Your task to perform on an android device: Go to Android settings Image 0: 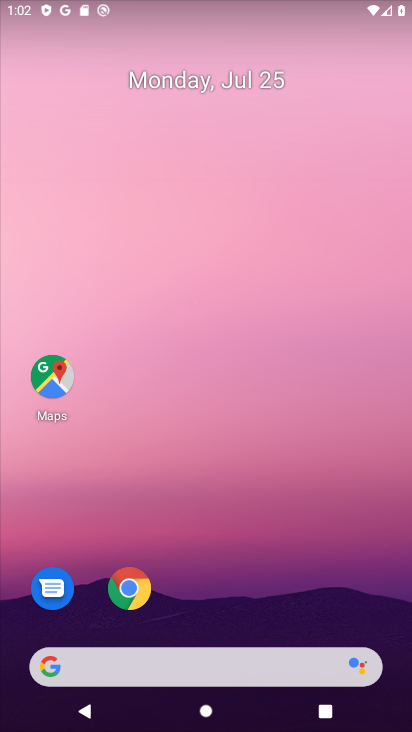
Step 0: drag from (172, 360) to (165, 246)
Your task to perform on an android device: Go to Android settings Image 1: 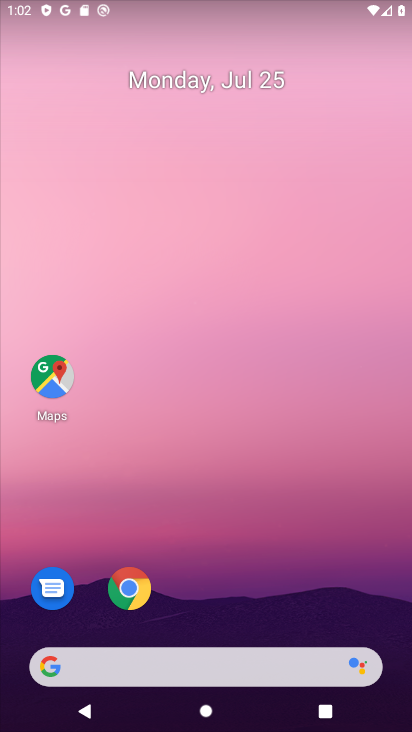
Step 1: drag from (188, 566) to (168, 235)
Your task to perform on an android device: Go to Android settings Image 2: 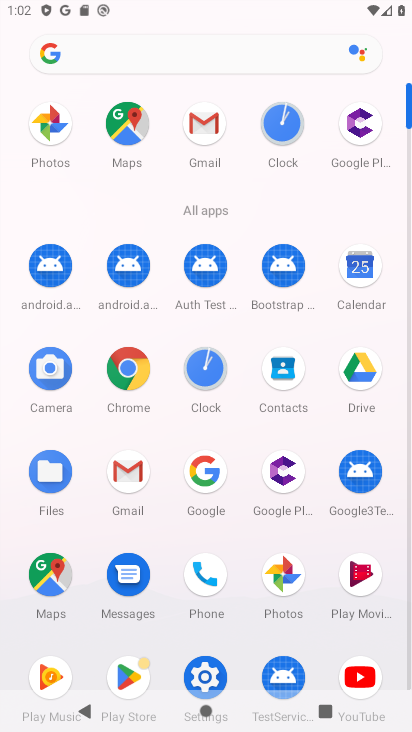
Step 2: click (193, 122)
Your task to perform on an android device: Go to Android settings Image 3: 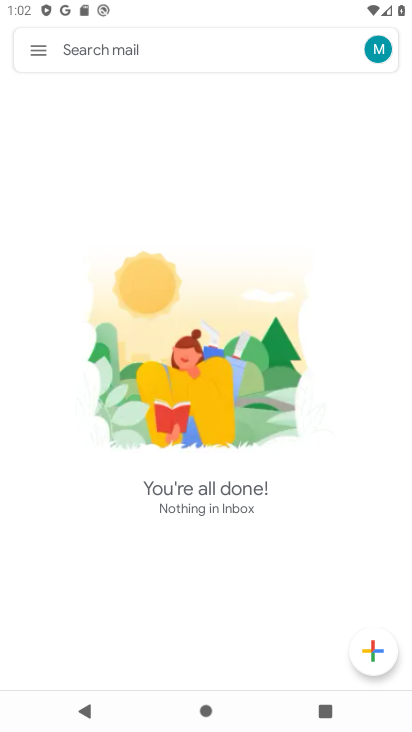
Step 3: press back button
Your task to perform on an android device: Go to Android settings Image 4: 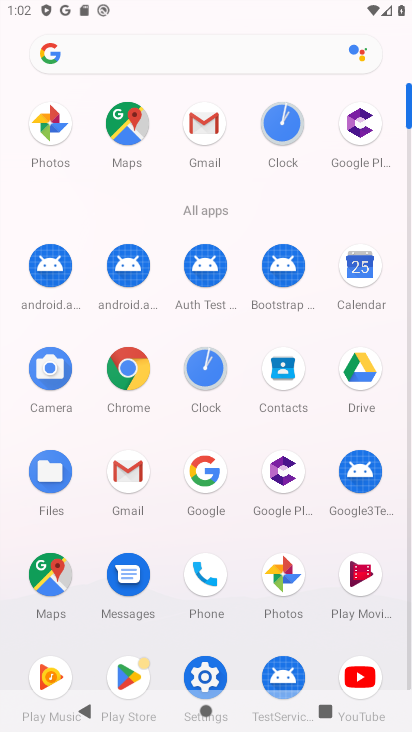
Step 4: click (205, 680)
Your task to perform on an android device: Go to Android settings Image 5: 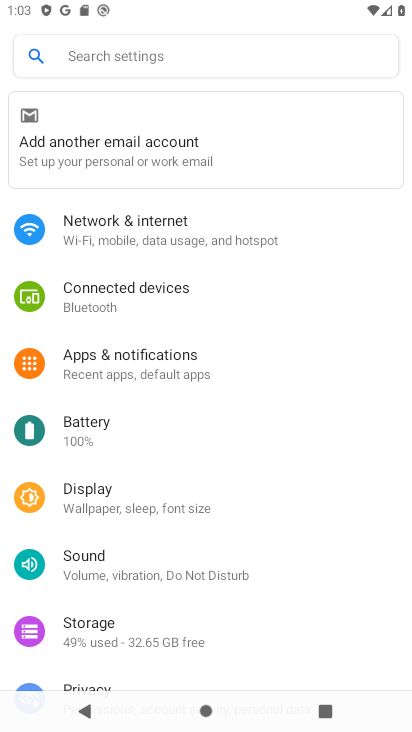
Step 5: click (90, 594)
Your task to perform on an android device: Go to Android settings Image 6: 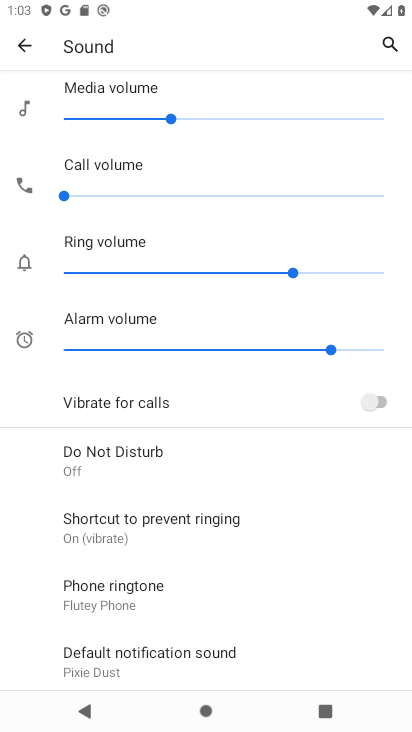
Step 6: click (23, 44)
Your task to perform on an android device: Go to Android settings Image 7: 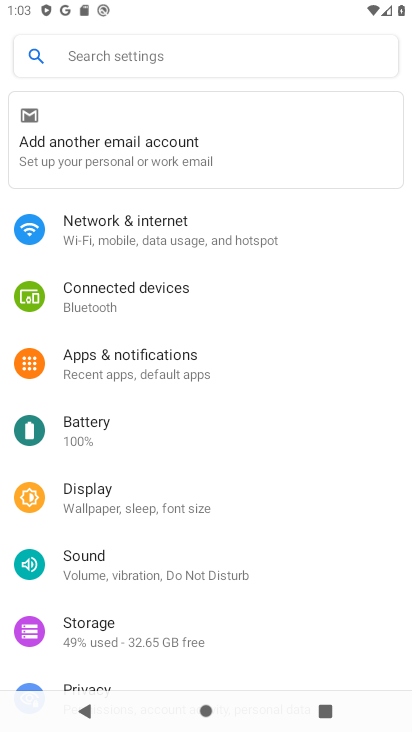
Step 7: drag from (116, 621) to (170, 204)
Your task to perform on an android device: Go to Android settings Image 8: 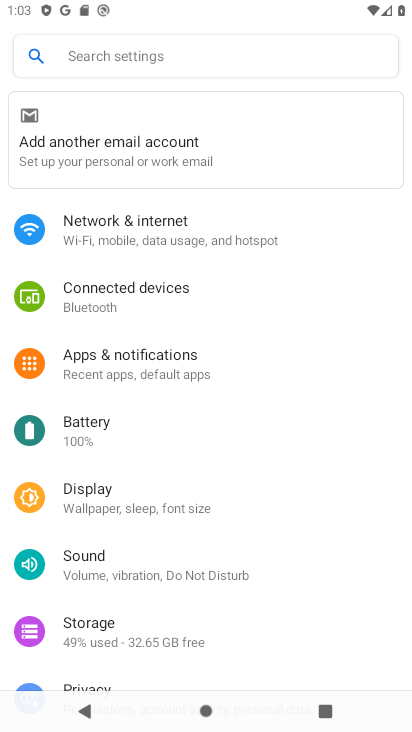
Step 8: drag from (138, 606) to (138, 124)
Your task to perform on an android device: Go to Android settings Image 9: 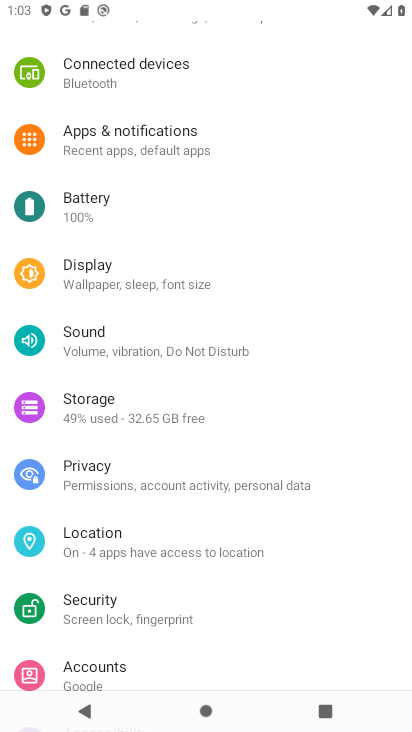
Step 9: drag from (114, 661) to (114, 222)
Your task to perform on an android device: Go to Android settings Image 10: 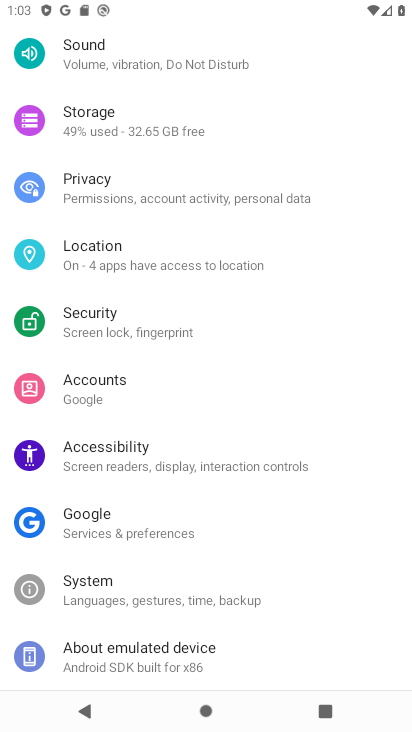
Step 10: click (98, 660)
Your task to perform on an android device: Go to Android settings Image 11: 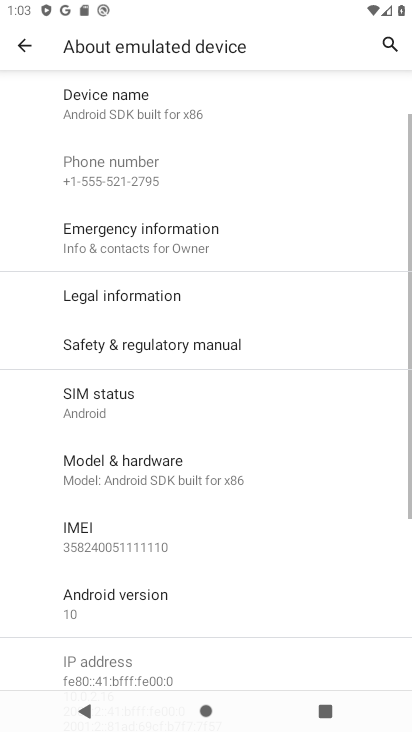
Step 11: click (85, 607)
Your task to perform on an android device: Go to Android settings Image 12: 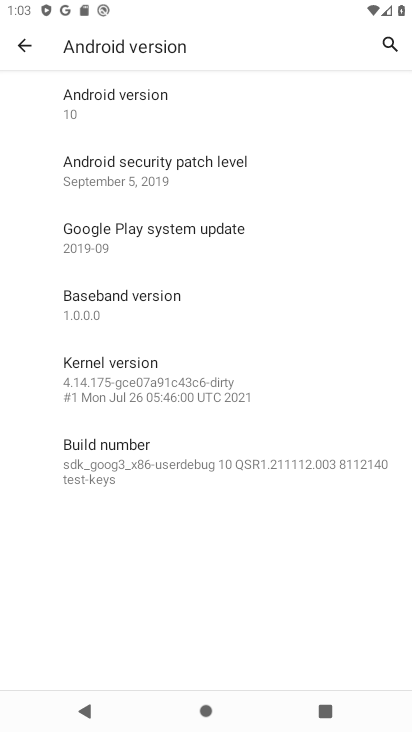
Step 12: task complete